Your task to perform on an android device: check google app version Image 0: 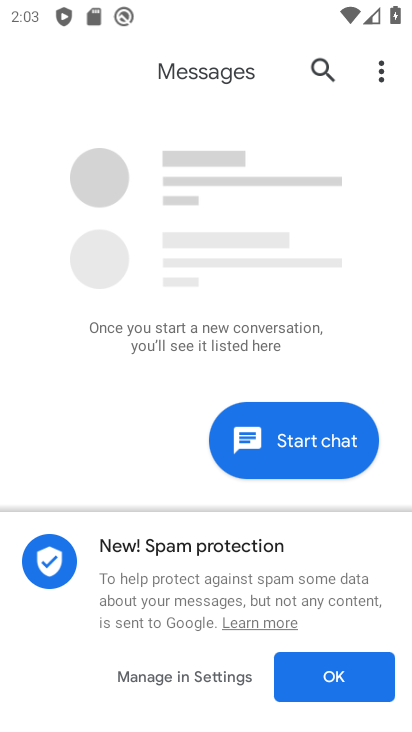
Step 0: press home button
Your task to perform on an android device: check google app version Image 1: 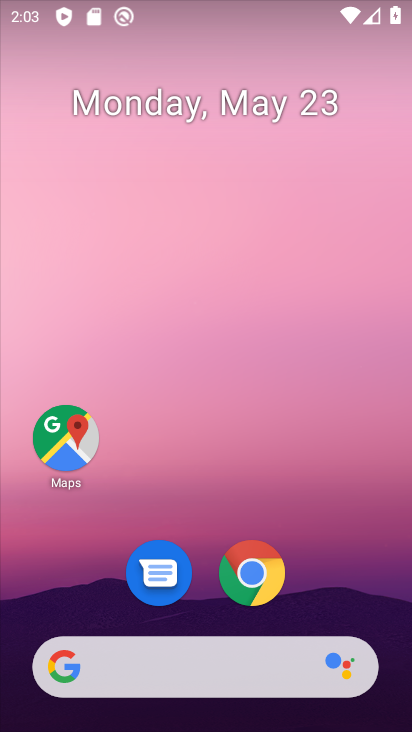
Step 1: drag from (351, 571) to (233, 86)
Your task to perform on an android device: check google app version Image 2: 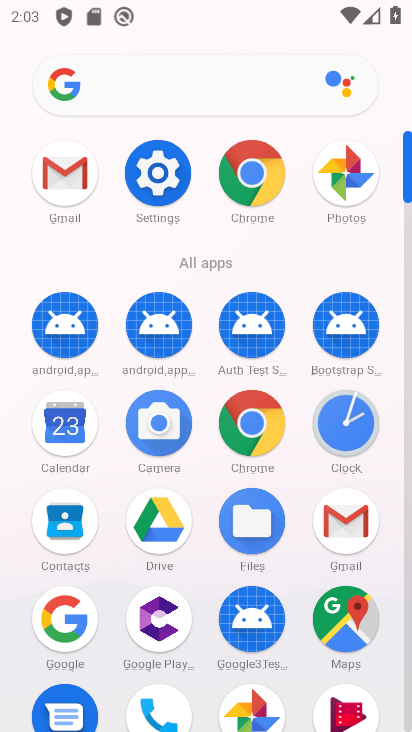
Step 2: click (166, 190)
Your task to perform on an android device: check google app version Image 3: 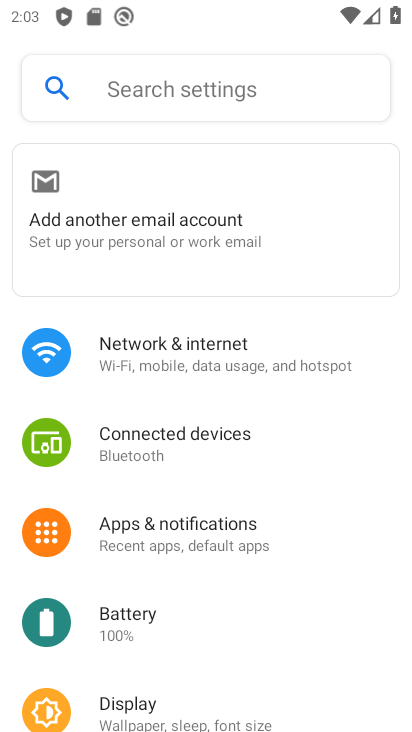
Step 3: press home button
Your task to perform on an android device: check google app version Image 4: 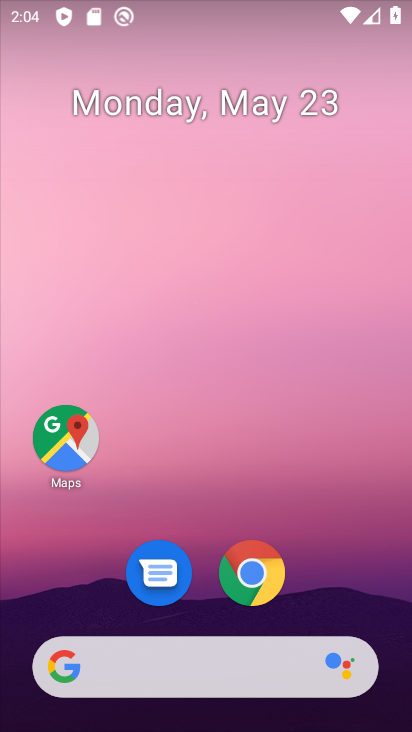
Step 4: drag from (218, 494) to (271, 31)
Your task to perform on an android device: check google app version Image 5: 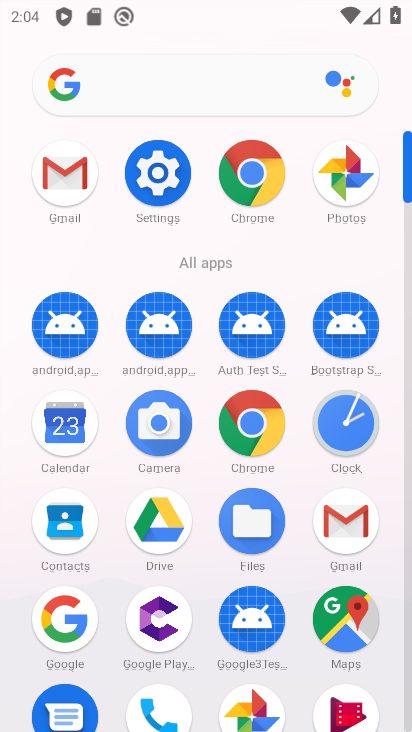
Step 5: click (72, 619)
Your task to perform on an android device: check google app version Image 6: 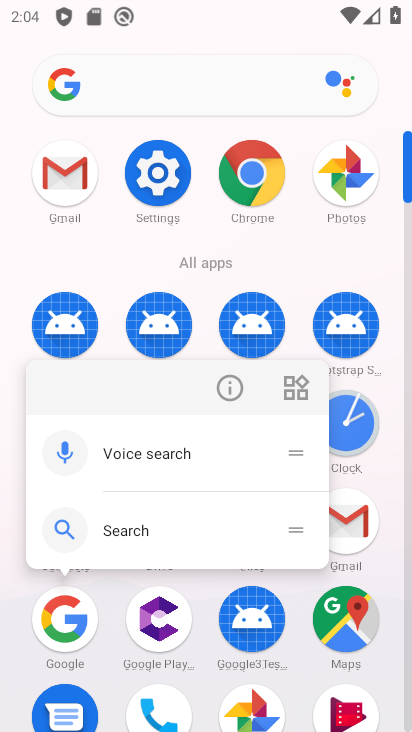
Step 6: click (231, 388)
Your task to perform on an android device: check google app version Image 7: 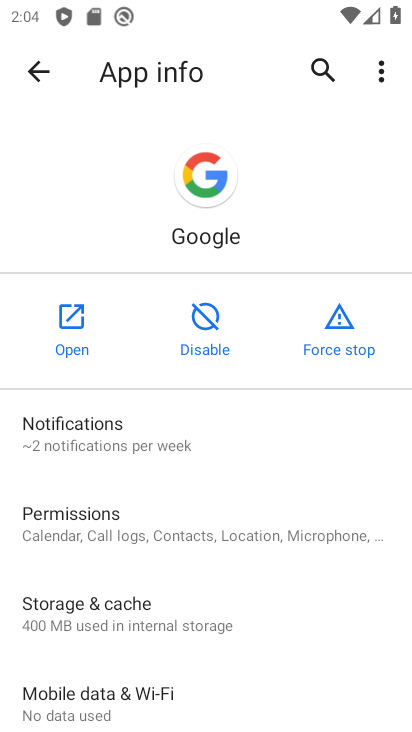
Step 7: drag from (187, 624) to (248, 71)
Your task to perform on an android device: check google app version Image 8: 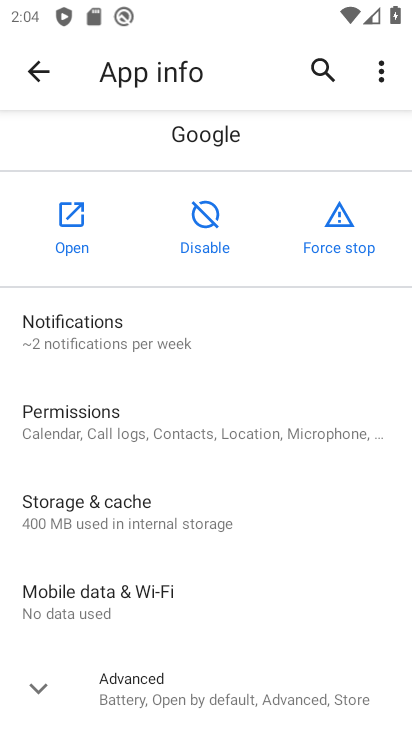
Step 8: click (187, 705)
Your task to perform on an android device: check google app version Image 9: 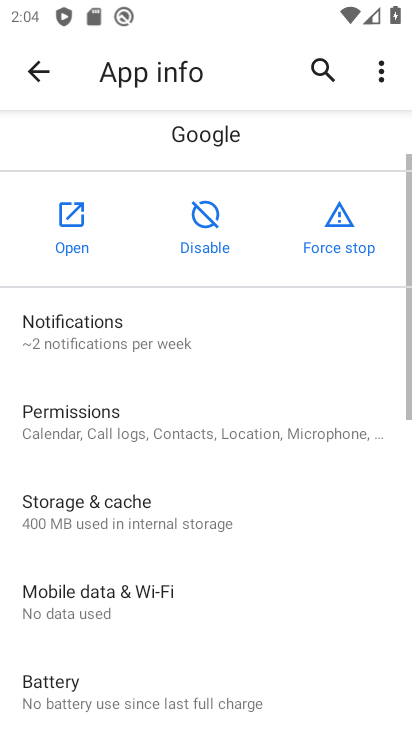
Step 9: task complete